Your task to perform on an android device: snooze an email in the gmail app Image 0: 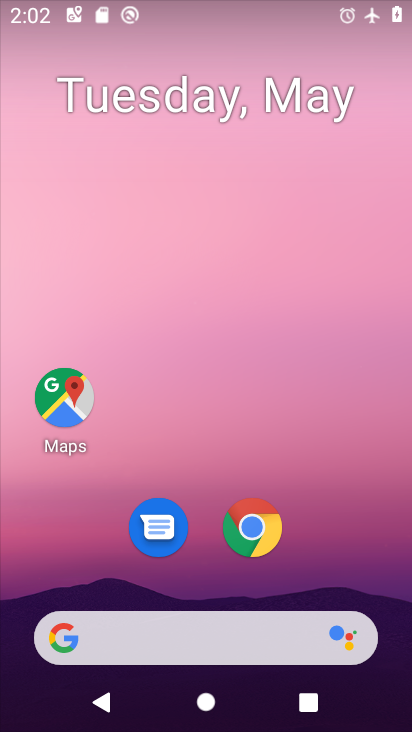
Step 0: drag from (258, 562) to (253, 1)
Your task to perform on an android device: snooze an email in the gmail app Image 1: 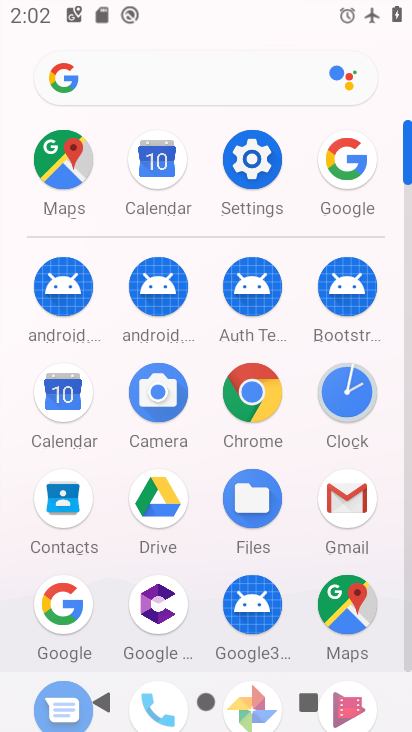
Step 1: click (338, 487)
Your task to perform on an android device: snooze an email in the gmail app Image 2: 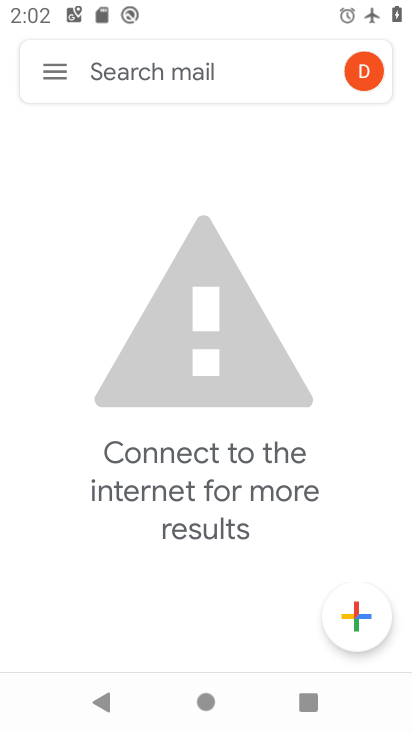
Step 2: task complete